Your task to perform on an android device: set the stopwatch Image 0: 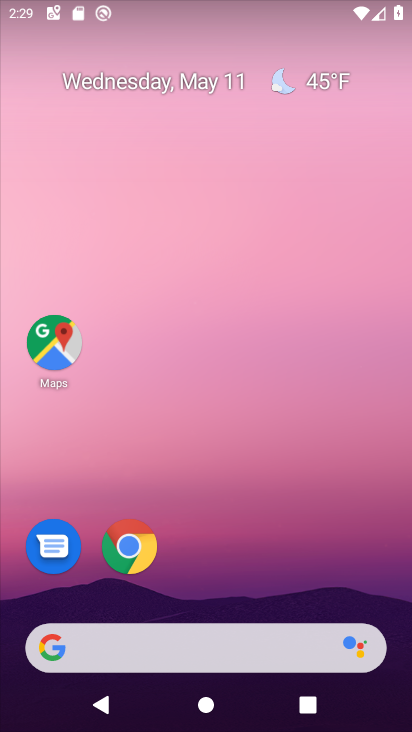
Step 0: drag from (229, 564) to (405, 6)
Your task to perform on an android device: set the stopwatch Image 1: 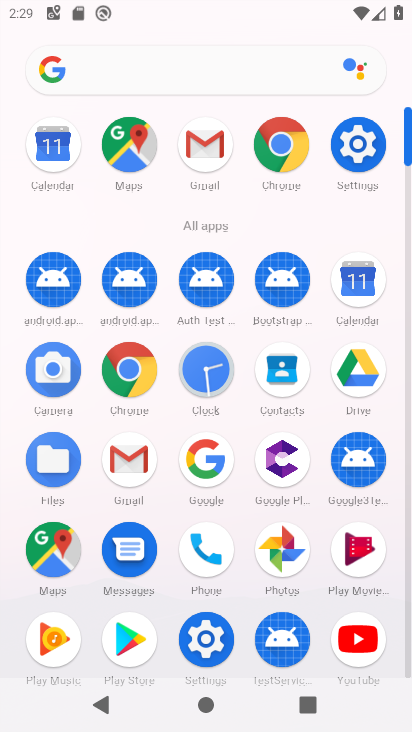
Step 1: click (228, 379)
Your task to perform on an android device: set the stopwatch Image 2: 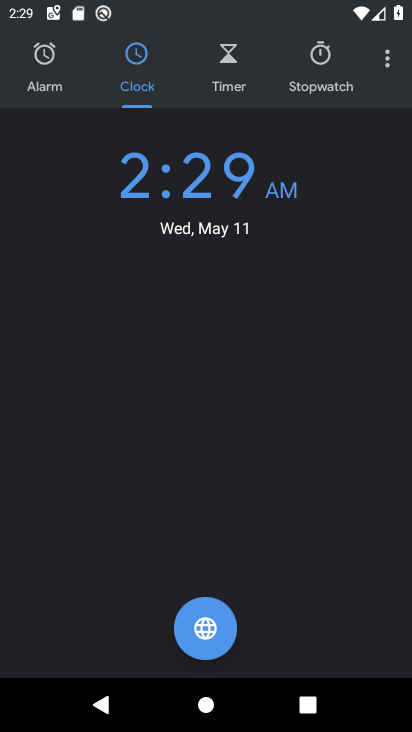
Step 2: click (323, 87)
Your task to perform on an android device: set the stopwatch Image 3: 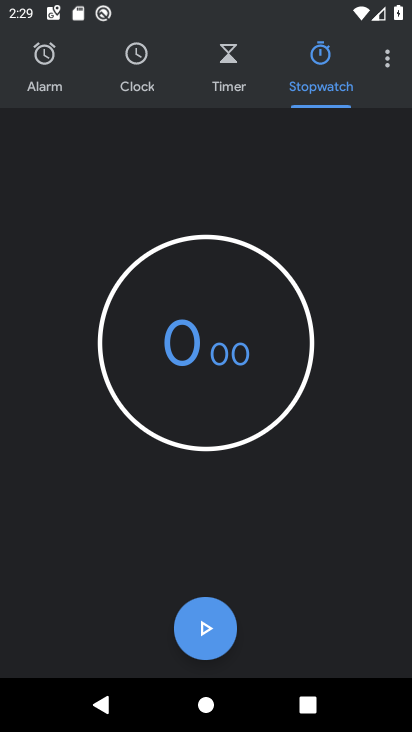
Step 3: click (198, 613)
Your task to perform on an android device: set the stopwatch Image 4: 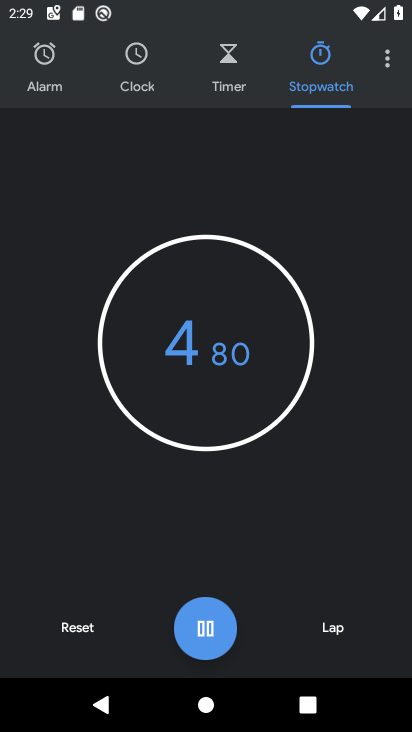
Step 4: task complete